Your task to perform on an android device: show emergency info Image 0: 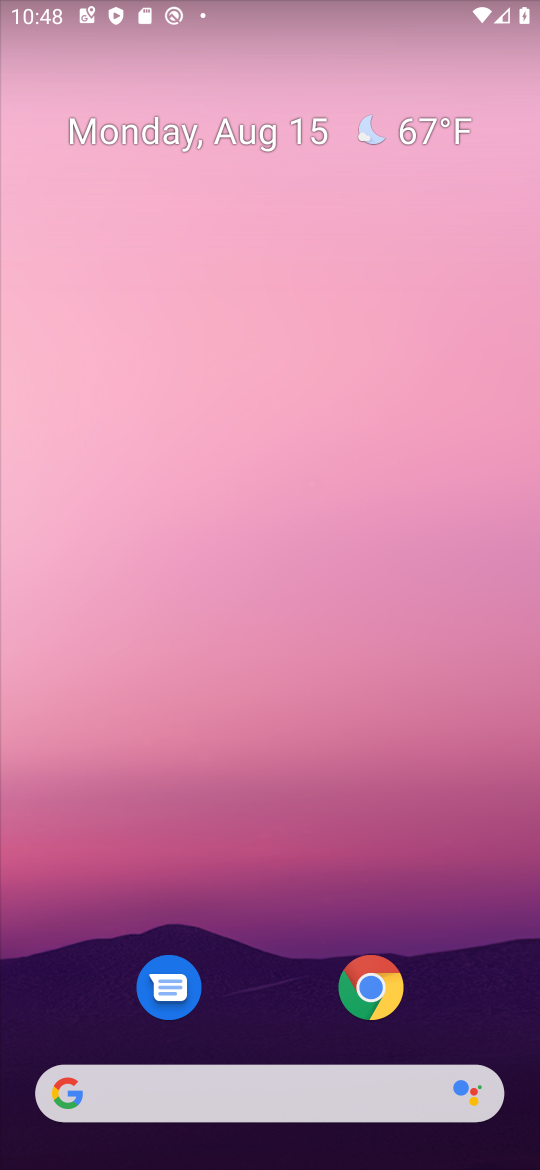
Step 0: drag from (291, 1060) to (137, 191)
Your task to perform on an android device: show emergency info Image 1: 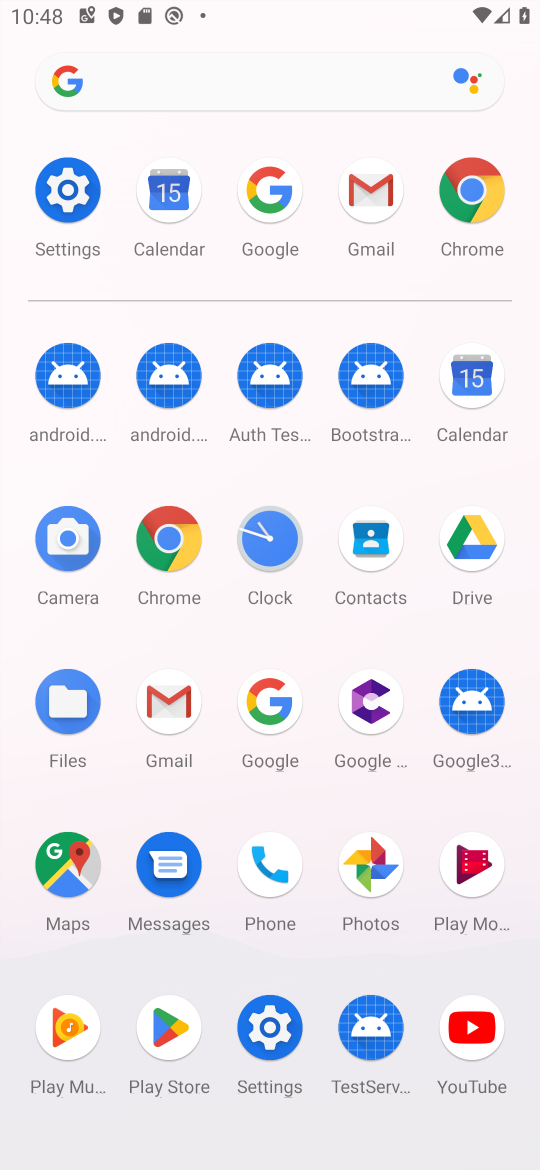
Step 1: click (249, 1045)
Your task to perform on an android device: show emergency info Image 2: 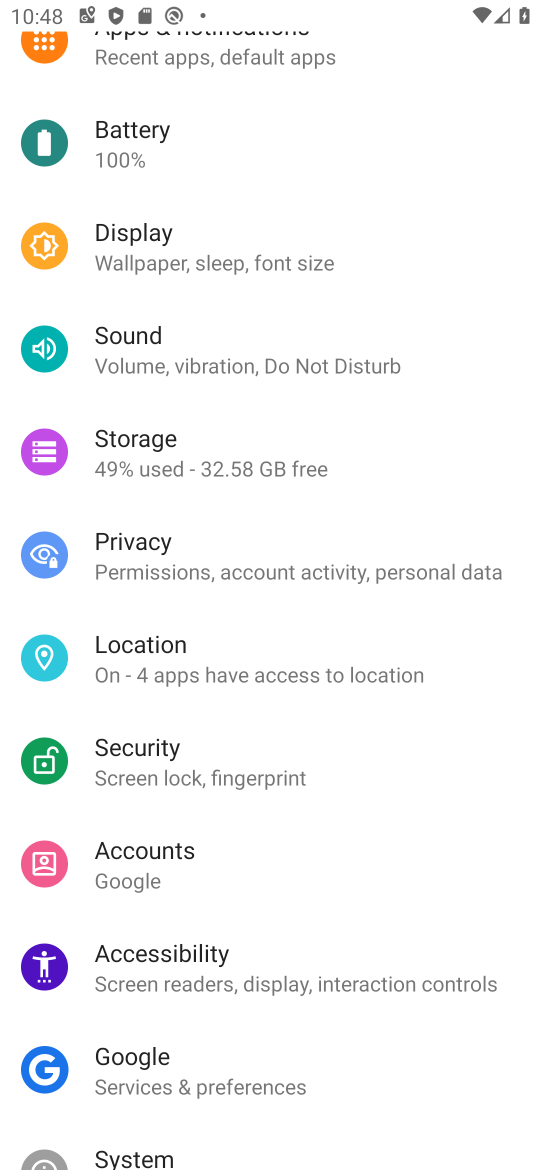
Step 2: drag from (220, 1087) to (111, 340)
Your task to perform on an android device: show emergency info Image 3: 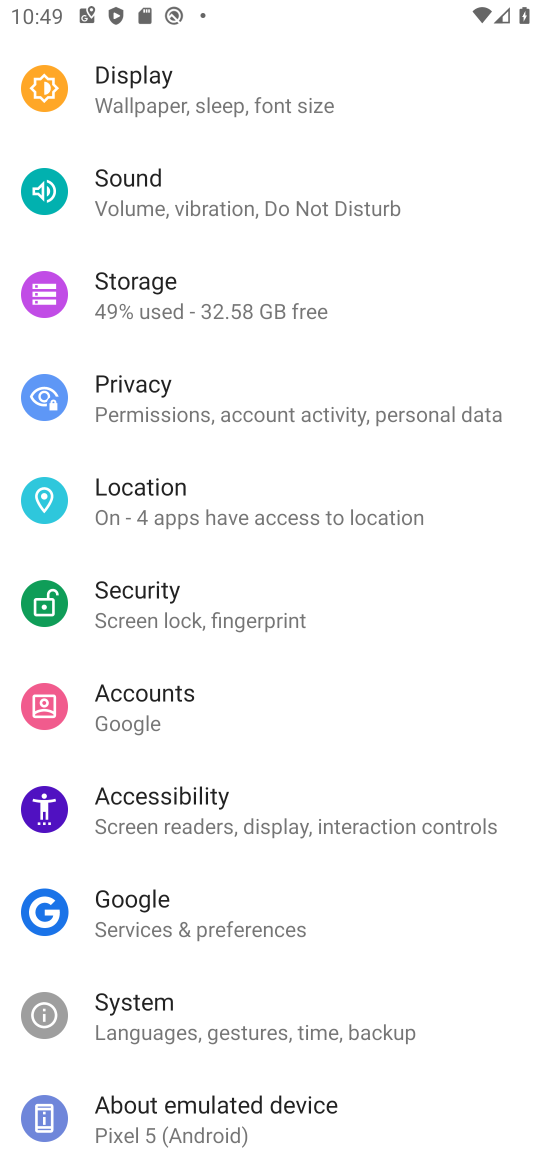
Step 3: click (145, 1045)
Your task to perform on an android device: show emergency info Image 4: 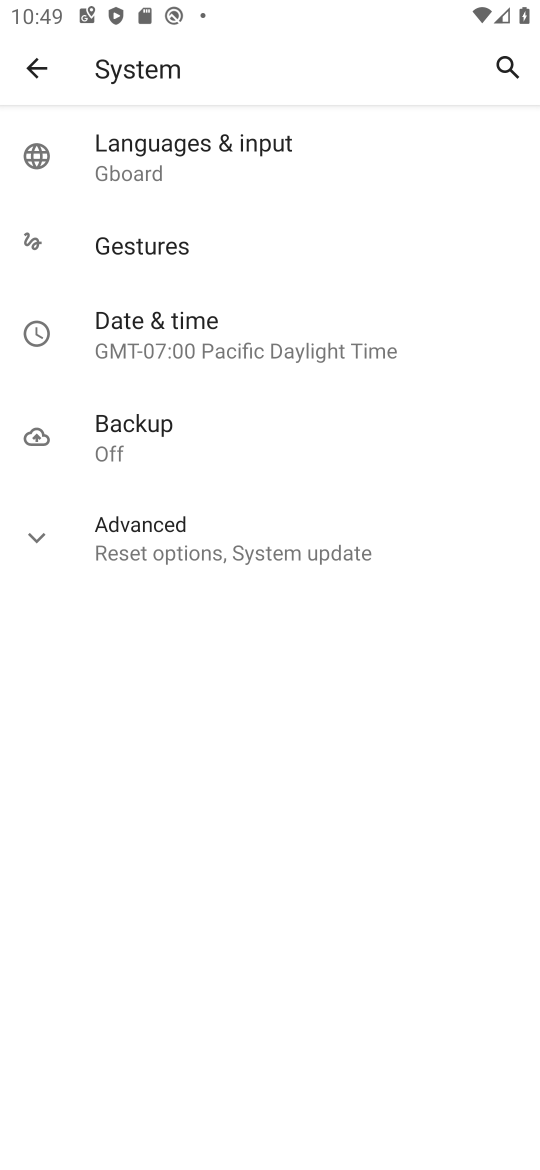
Step 4: click (23, 66)
Your task to perform on an android device: show emergency info Image 5: 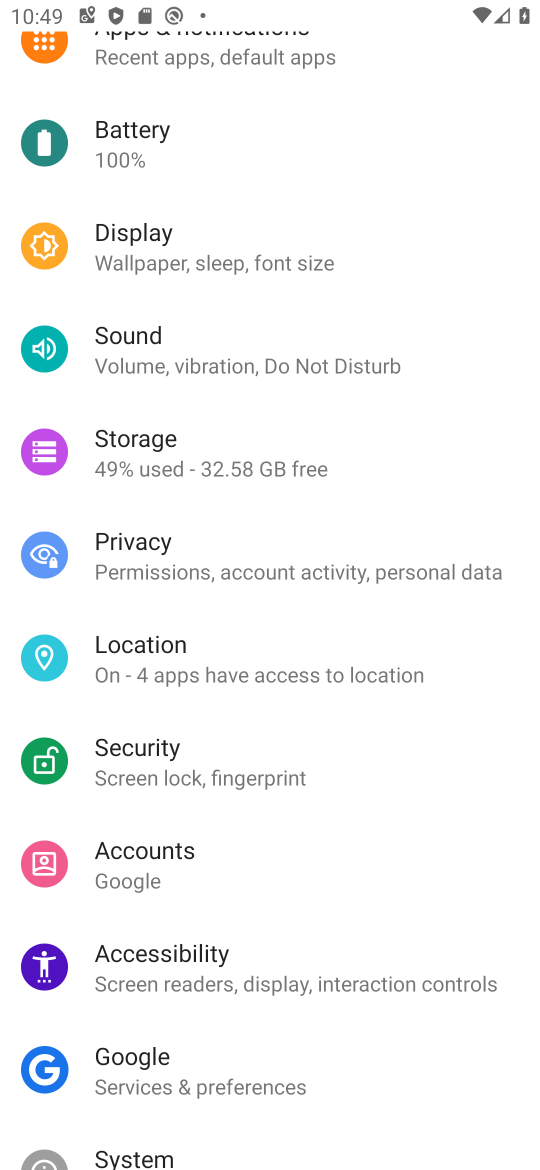
Step 5: drag from (241, 1089) to (133, 305)
Your task to perform on an android device: show emergency info Image 6: 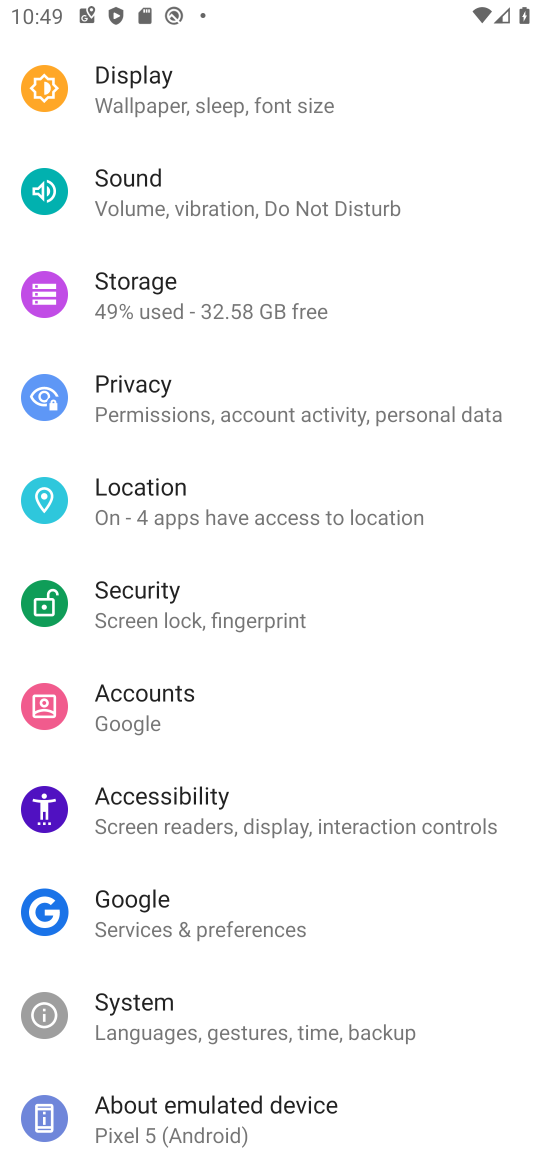
Step 6: click (243, 1124)
Your task to perform on an android device: show emergency info Image 7: 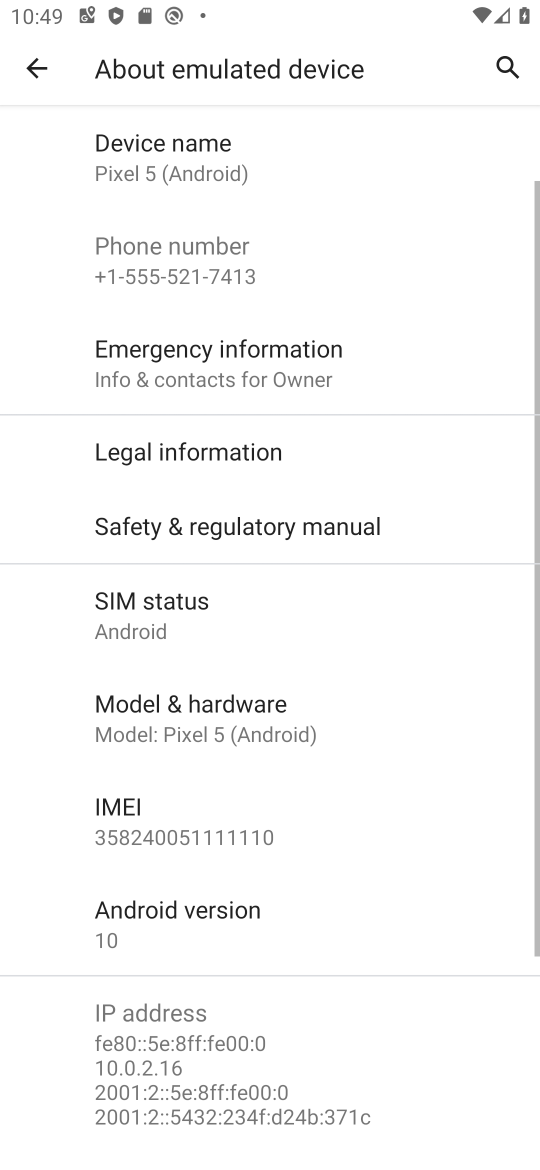
Step 7: click (153, 353)
Your task to perform on an android device: show emergency info Image 8: 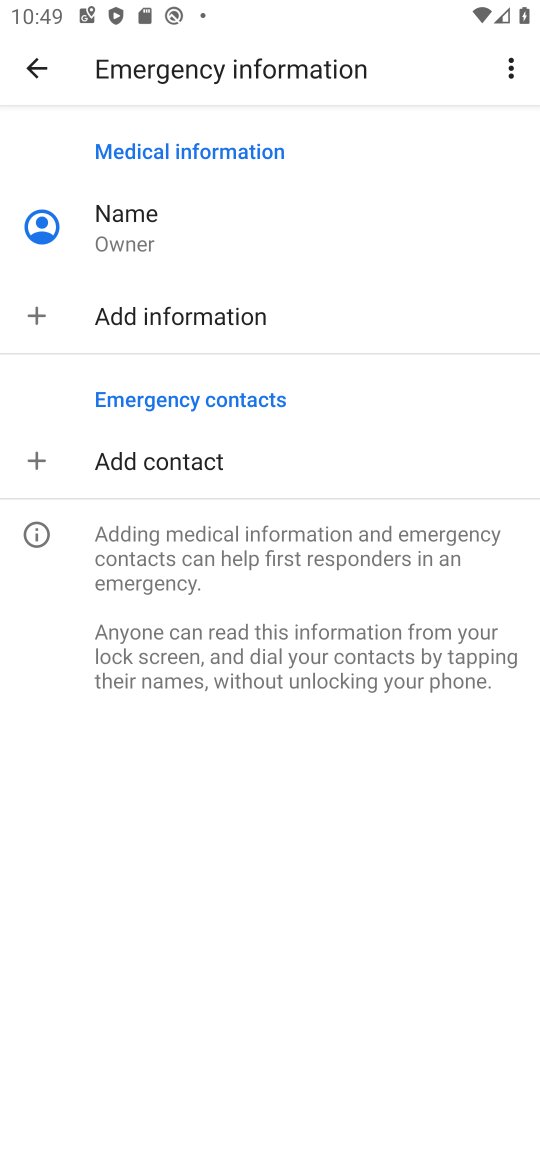
Step 8: task complete